Your task to perform on an android device: check storage Image 0: 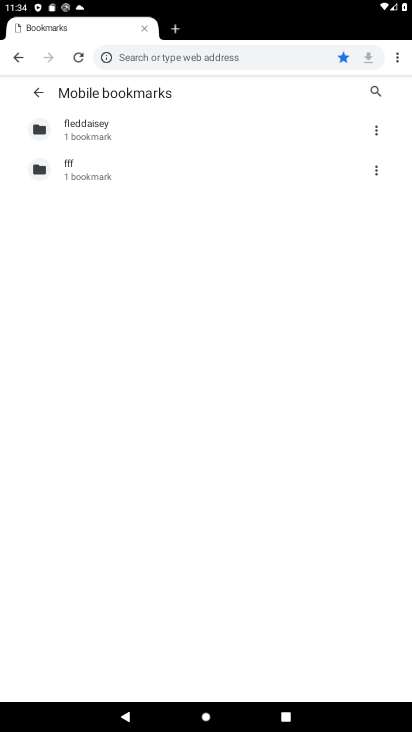
Step 0: press home button
Your task to perform on an android device: check storage Image 1: 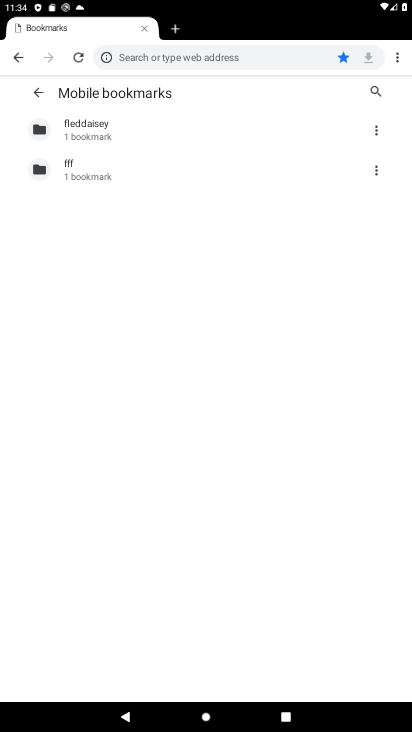
Step 1: press home button
Your task to perform on an android device: check storage Image 2: 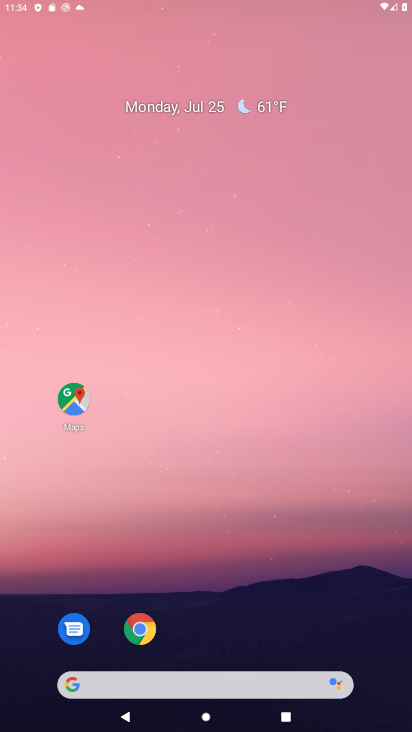
Step 2: press home button
Your task to perform on an android device: check storage Image 3: 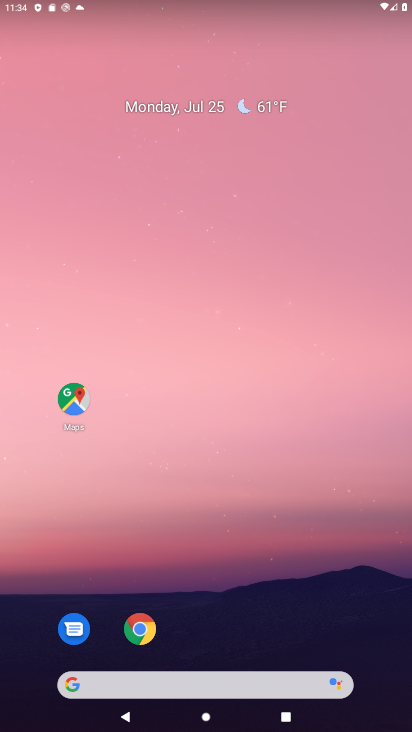
Step 3: drag from (192, 630) to (241, 183)
Your task to perform on an android device: check storage Image 4: 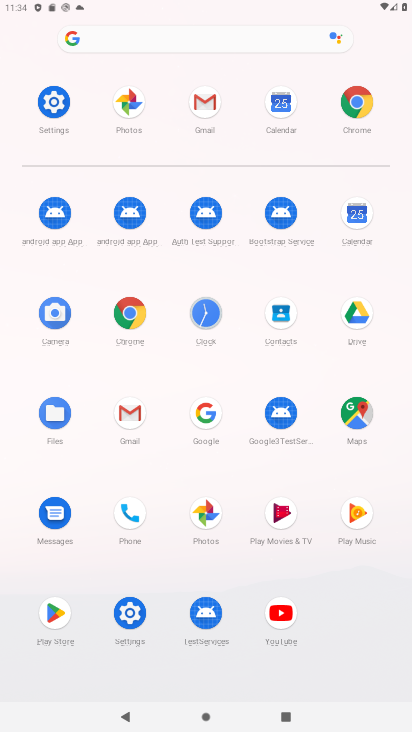
Step 4: click (121, 609)
Your task to perform on an android device: check storage Image 5: 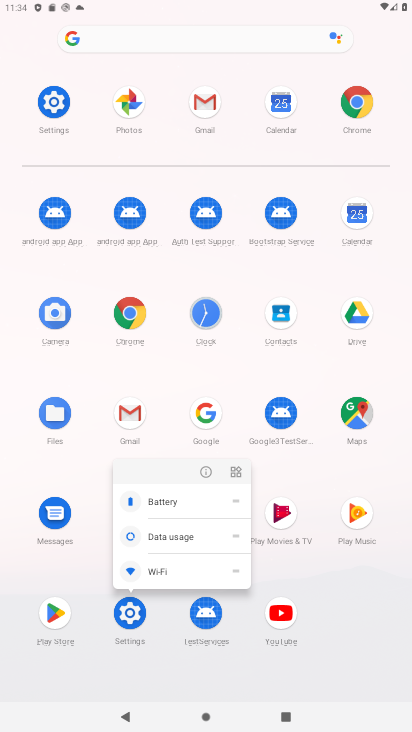
Step 5: click (204, 464)
Your task to perform on an android device: check storage Image 6: 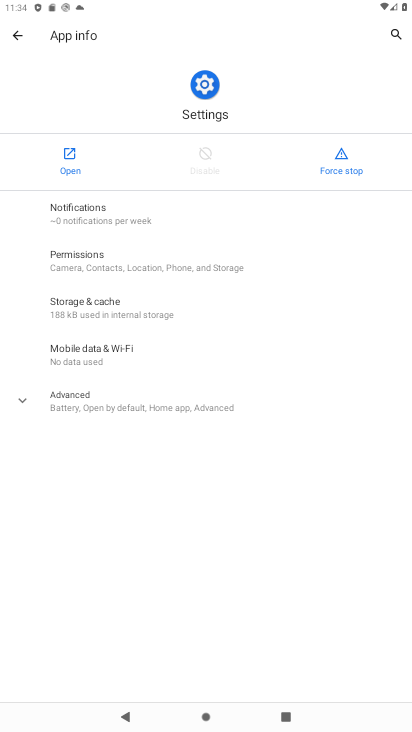
Step 6: click (64, 156)
Your task to perform on an android device: check storage Image 7: 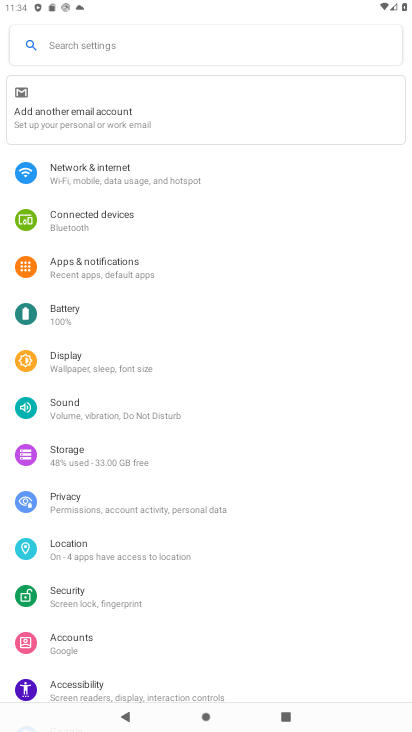
Step 7: click (82, 445)
Your task to perform on an android device: check storage Image 8: 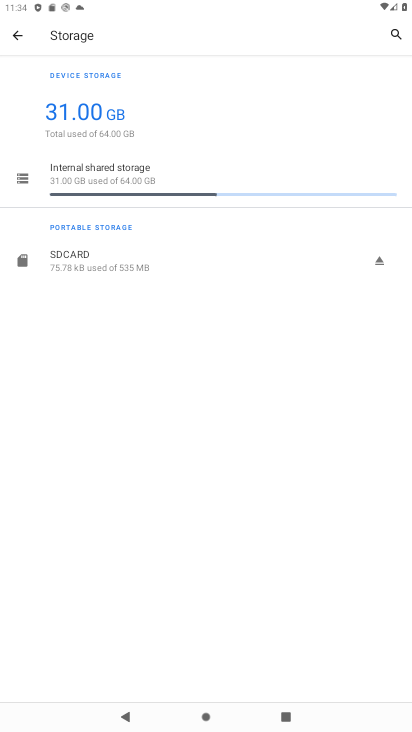
Step 8: task complete